Your task to perform on an android device: Open Google Maps Image 0: 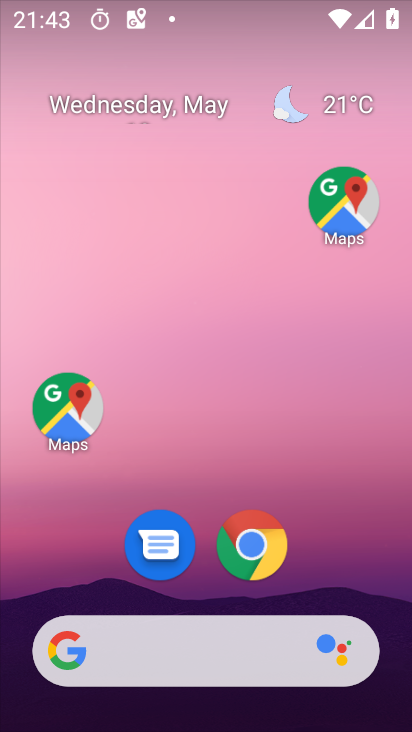
Step 0: drag from (313, 593) to (330, 19)
Your task to perform on an android device: Open Google Maps Image 1: 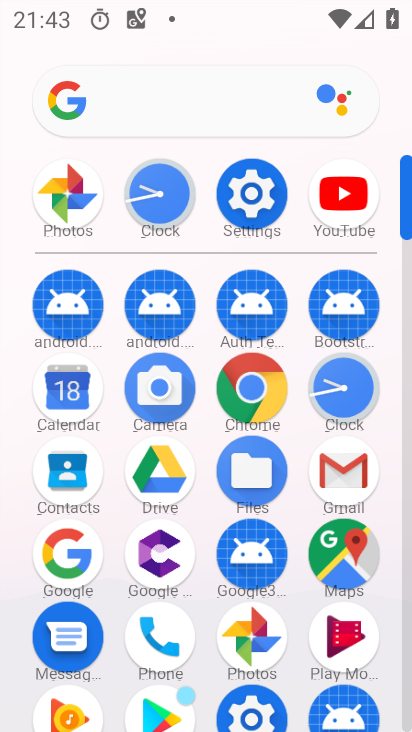
Step 1: click (334, 560)
Your task to perform on an android device: Open Google Maps Image 2: 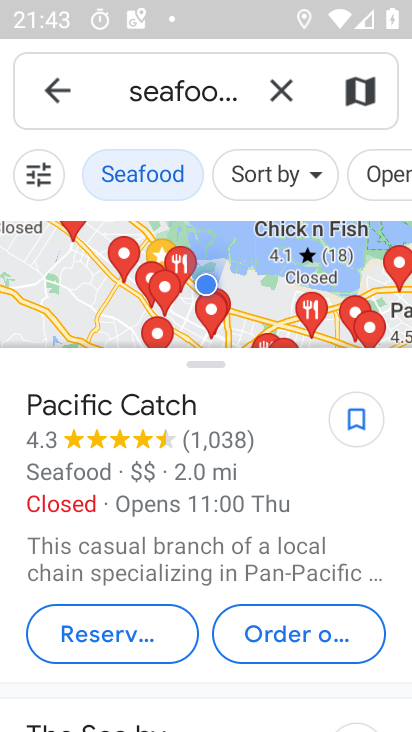
Step 2: click (53, 86)
Your task to perform on an android device: Open Google Maps Image 3: 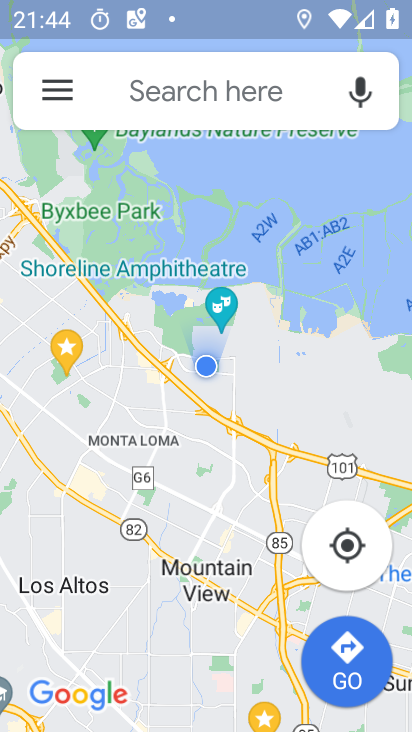
Step 3: task complete